Your task to perform on an android device: clear history in the chrome app Image 0: 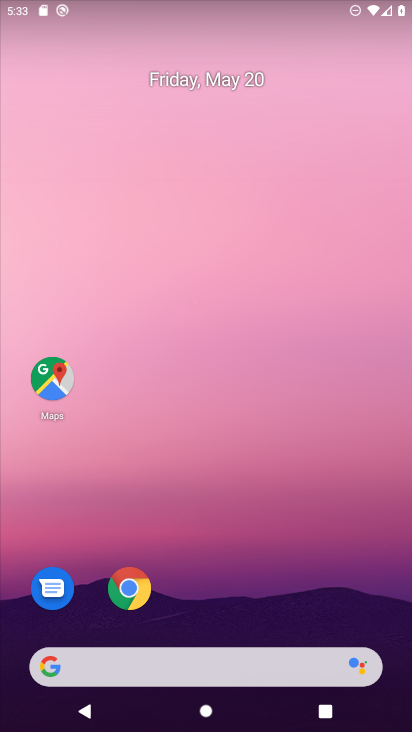
Step 0: click (135, 593)
Your task to perform on an android device: clear history in the chrome app Image 1: 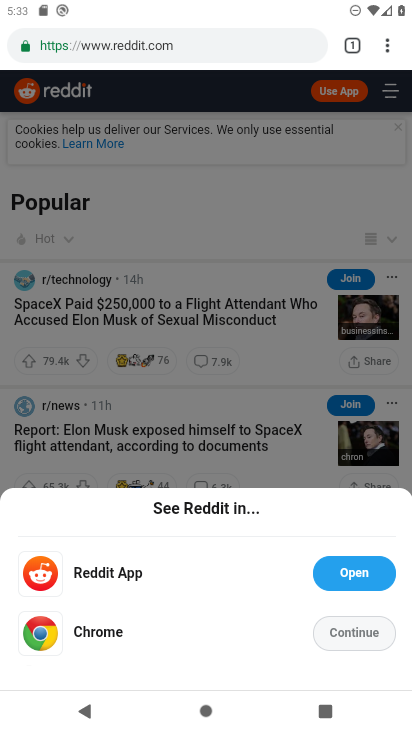
Step 1: click (385, 49)
Your task to perform on an android device: clear history in the chrome app Image 2: 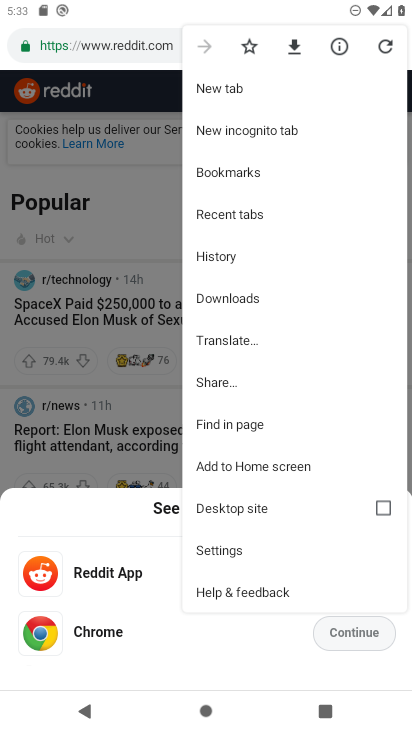
Step 2: click (216, 253)
Your task to perform on an android device: clear history in the chrome app Image 3: 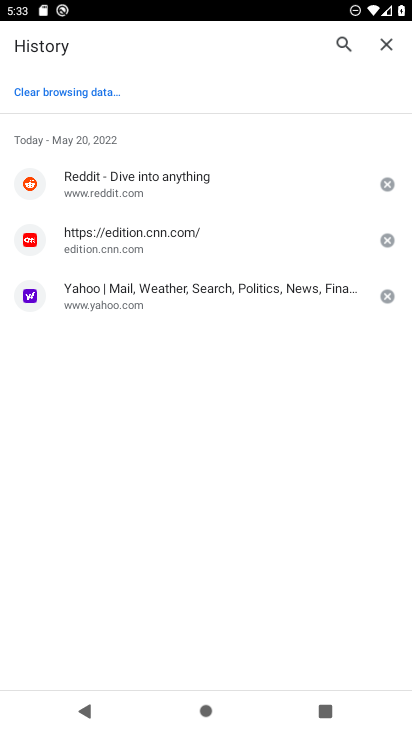
Step 3: click (51, 98)
Your task to perform on an android device: clear history in the chrome app Image 4: 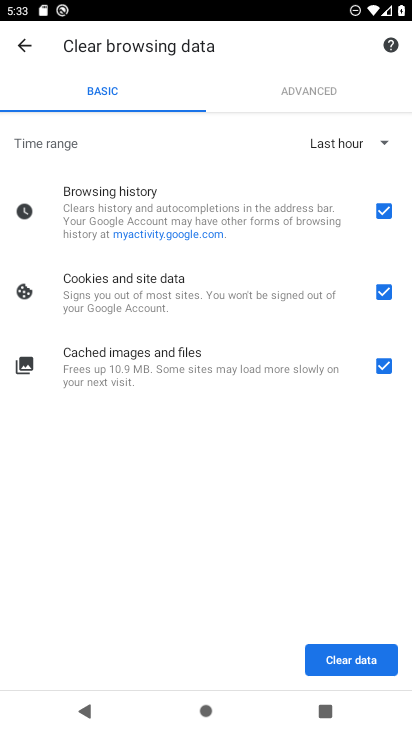
Step 4: click (342, 654)
Your task to perform on an android device: clear history in the chrome app Image 5: 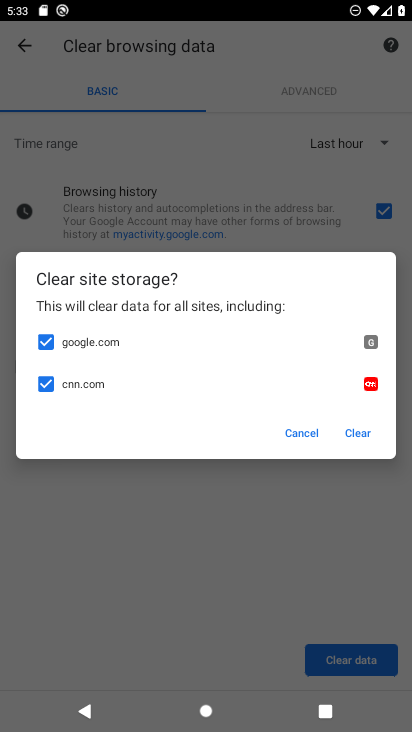
Step 5: click (370, 421)
Your task to perform on an android device: clear history in the chrome app Image 6: 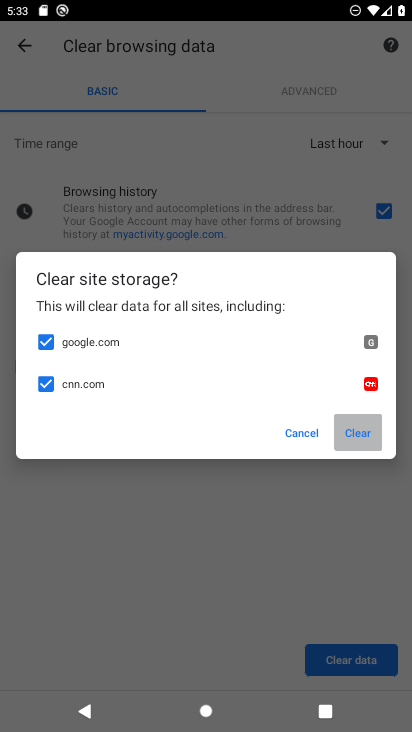
Step 6: click (365, 430)
Your task to perform on an android device: clear history in the chrome app Image 7: 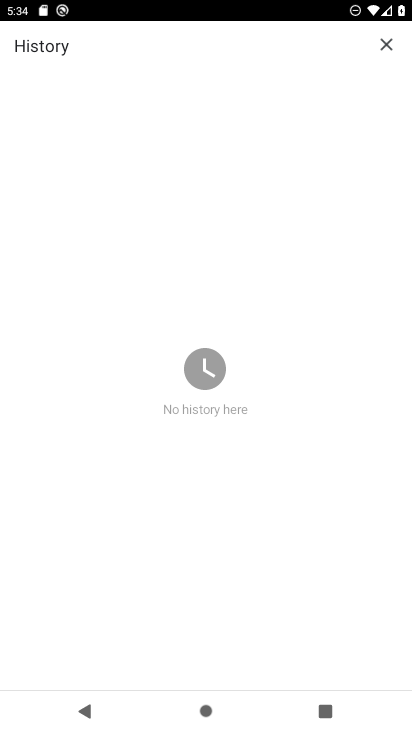
Step 7: task complete